Your task to perform on an android device: change the clock display to show seconds Image 0: 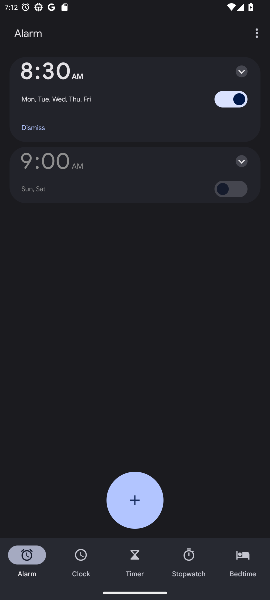
Step 0: click (260, 36)
Your task to perform on an android device: change the clock display to show seconds Image 1: 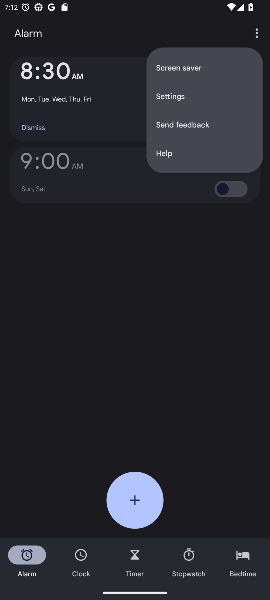
Step 1: click (183, 102)
Your task to perform on an android device: change the clock display to show seconds Image 2: 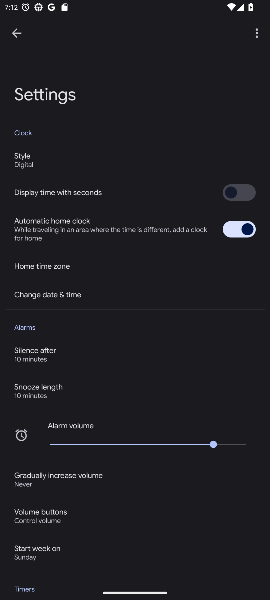
Step 2: click (235, 185)
Your task to perform on an android device: change the clock display to show seconds Image 3: 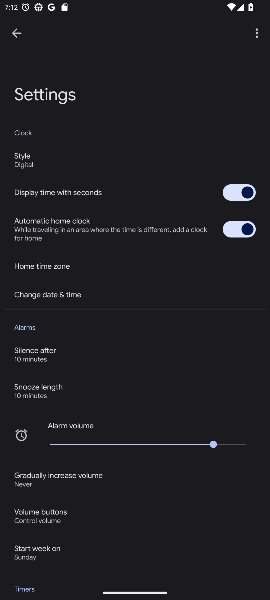
Step 3: task complete